Your task to perform on an android device: Search for sushi restaurants on Maps Image 0: 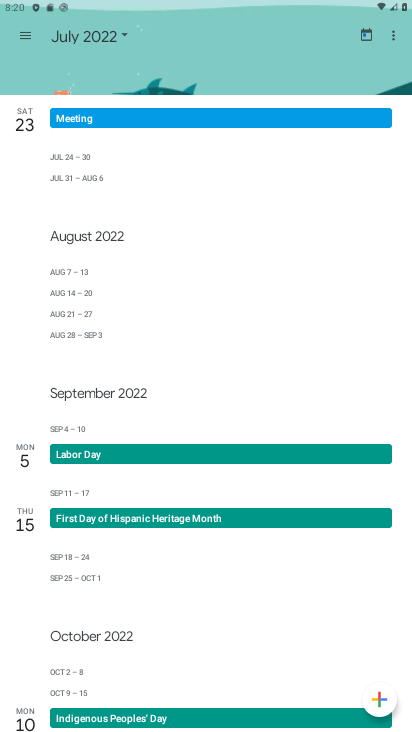
Step 0: press home button
Your task to perform on an android device: Search for sushi restaurants on Maps Image 1: 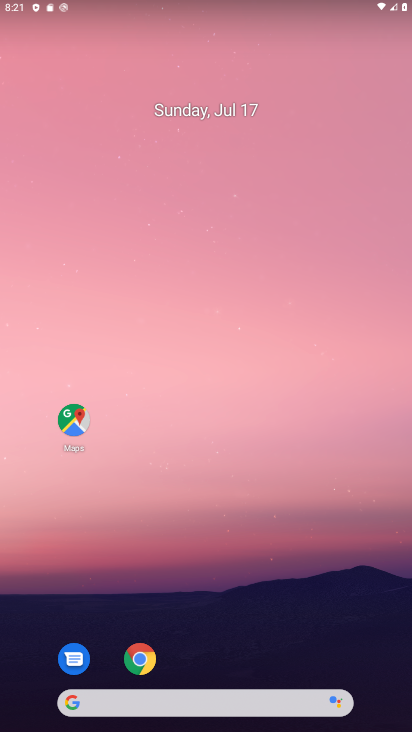
Step 1: click (74, 422)
Your task to perform on an android device: Search for sushi restaurants on Maps Image 2: 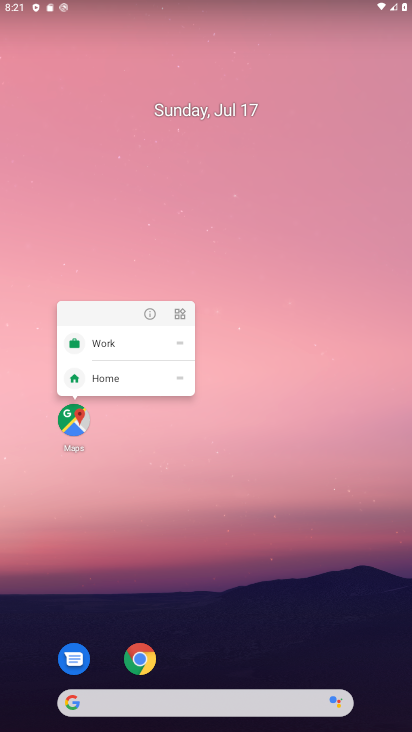
Step 2: click (74, 422)
Your task to perform on an android device: Search for sushi restaurants on Maps Image 3: 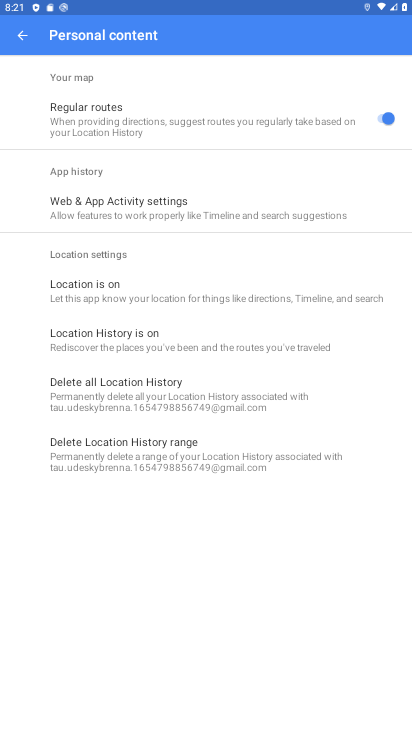
Step 3: press back button
Your task to perform on an android device: Search for sushi restaurants on Maps Image 4: 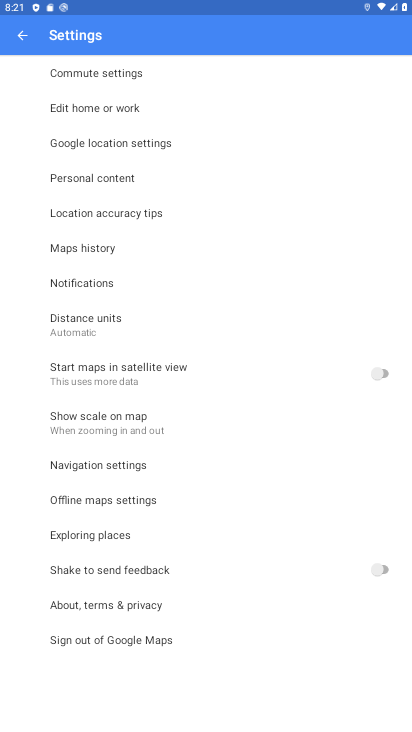
Step 4: press back button
Your task to perform on an android device: Search for sushi restaurants on Maps Image 5: 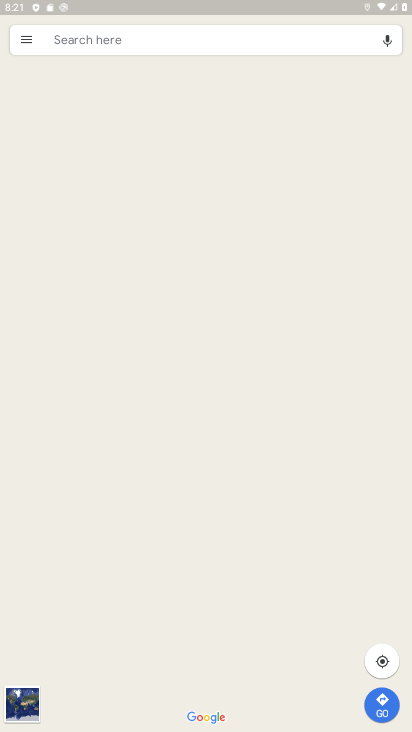
Step 5: click (243, 33)
Your task to perform on an android device: Search for sushi restaurants on Maps Image 6: 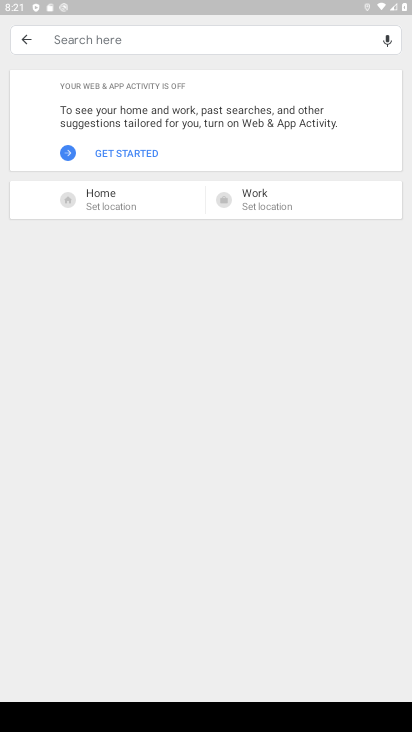
Step 6: type "sushi restauarnts"
Your task to perform on an android device: Search for sushi restaurants on Maps Image 7: 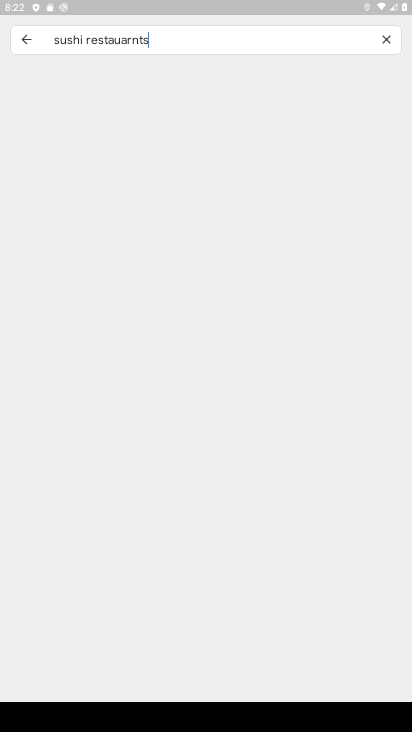
Step 7: click (390, 44)
Your task to perform on an android device: Search for sushi restaurants on Maps Image 8: 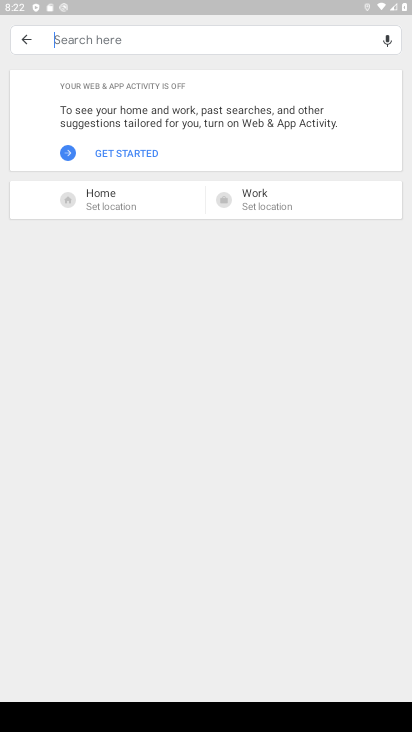
Step 8: click (320, 42)
Your task to perform on an android device: Search for sushi restaurants on Maps Image 9: 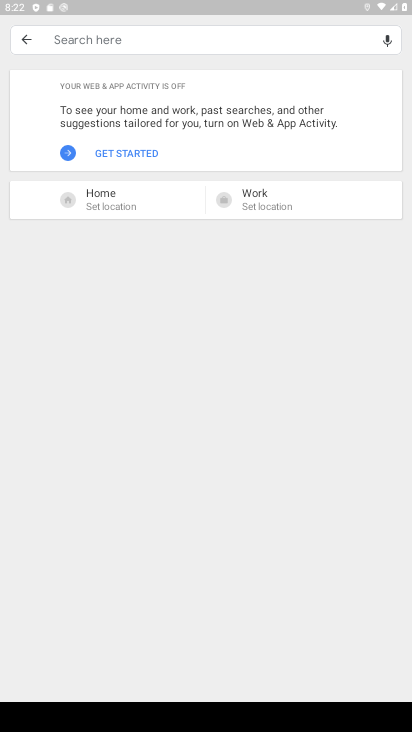
Step 9: press back button
Your task to perform on an android device: Search for sushi restaurants on Maps Image 10: 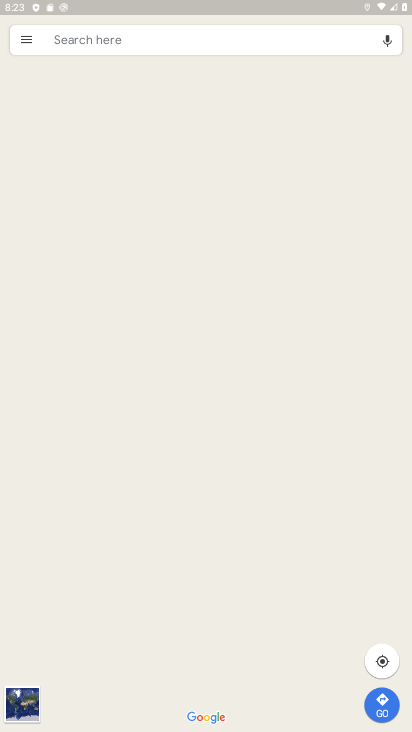
Step 10: click (165, 35)
Your task to perform on an android device: Search for sushi restaurants on Maps Image 11: 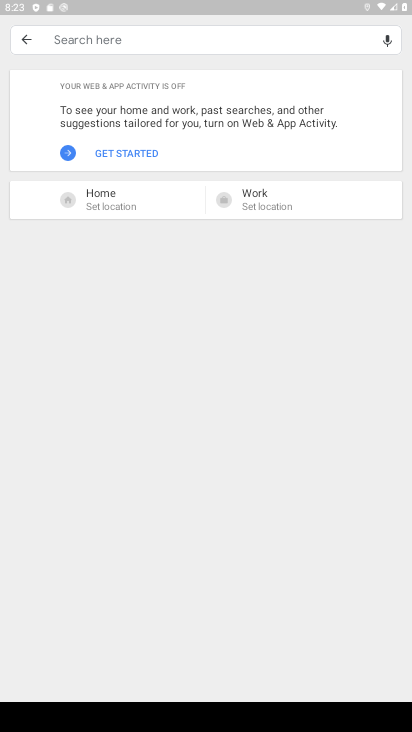
Step 11: task complete